Your task to perform on an android device: See recent photos Image 0: 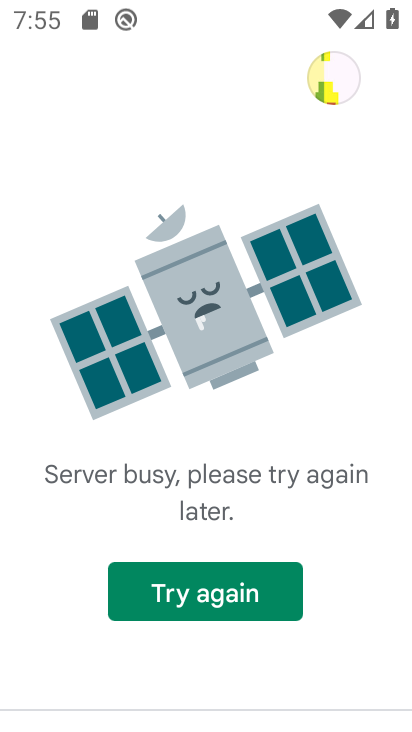
Step 0: press home button
Your task to perform on an android device: See recent photos Image 1: 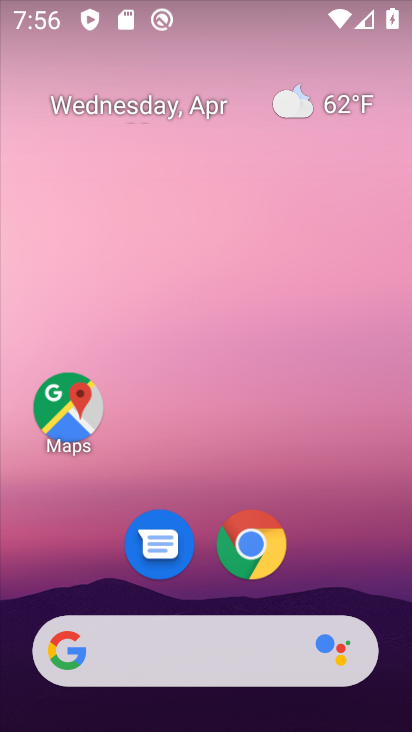
Step 1: drag from (214, 555) to (262, 184)
Your task to perform on an android device: See recent photos Image 2: 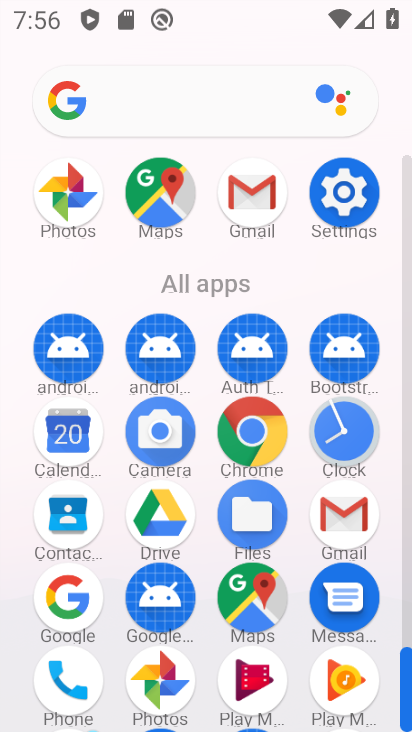
Step 2: click (72, 199)
Your task to perform on an android device: See recent photos Image 3: 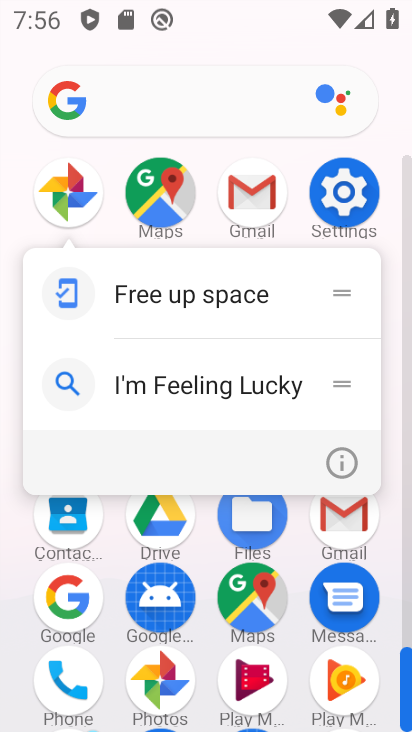
Step 3: click (72, 199)
Your task to perform on an android device: See recent photos Image 4: 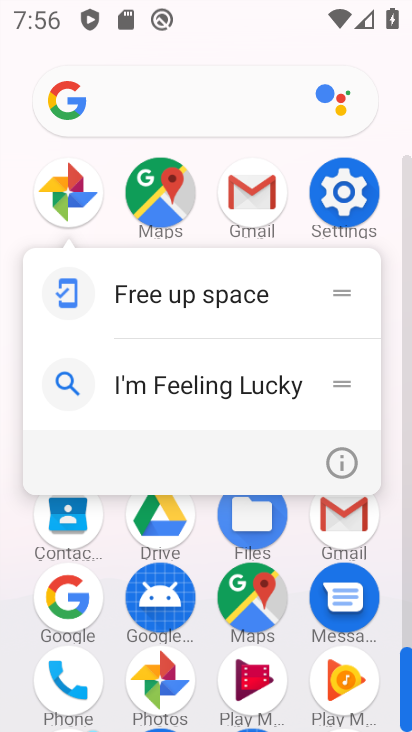
Step 4: click (73, 204)
Your task to perform on an android device: See recent photos Image 5: 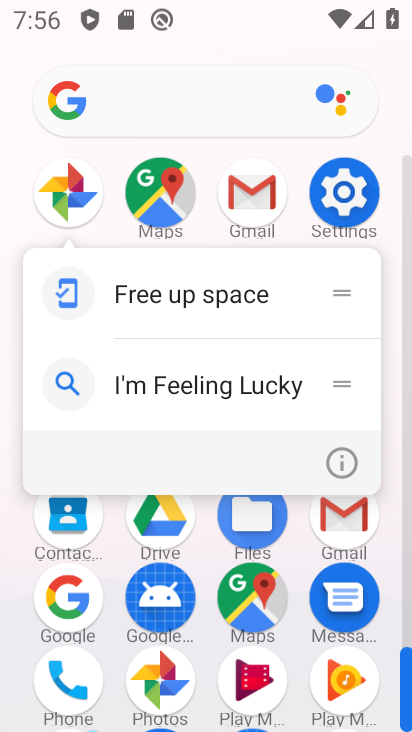
Step 5: click (75, 191)
Your task to perform on an android device: See recent photos Image 6: 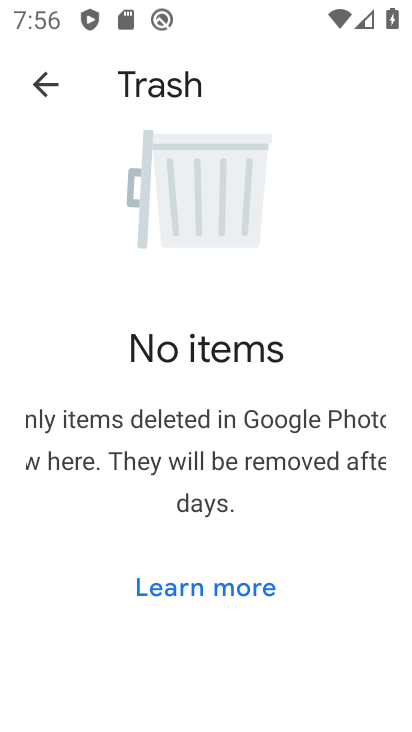
Step 6: click (50, 90)
Your task to perform on an android device: See recent photos Image 7: 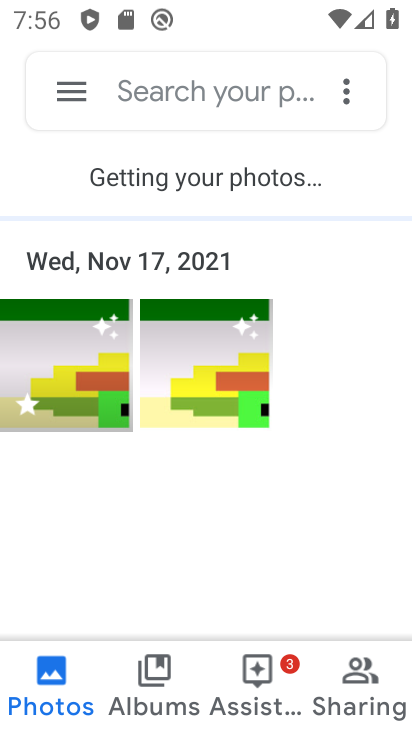
Step 7: click (82, 397)
Your task to perform on an android device: See recent photos Image 8: 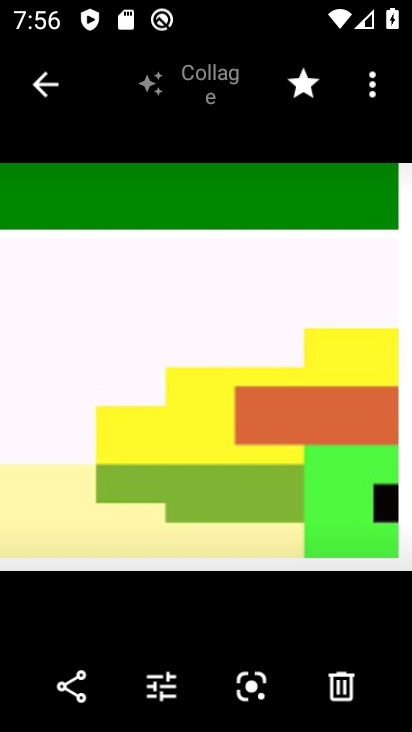
Step 8: task complete